Your task to perform on an android device: change the upload size in google photos Image 0: 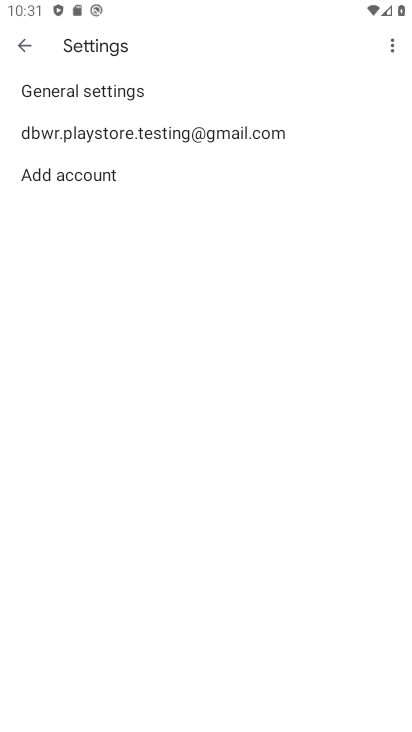
Step 0: press back button
Your task to perform on an android device: change the upload size in google photos Image 1: 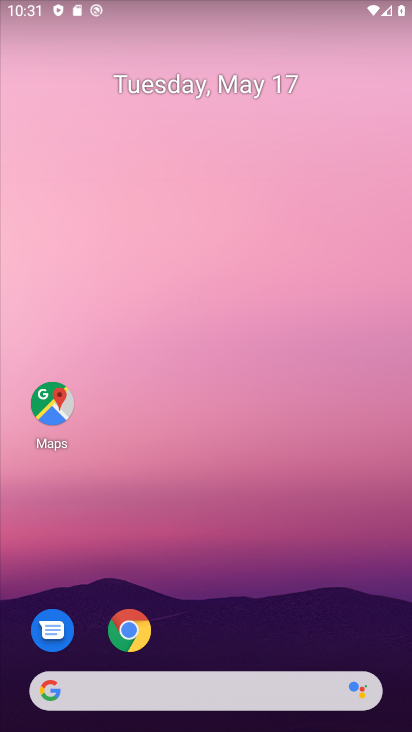
Step 1: drag from (195, 610) to (288, 120)
Your task to perform on an android device: change the upload size in google photos Image 2: 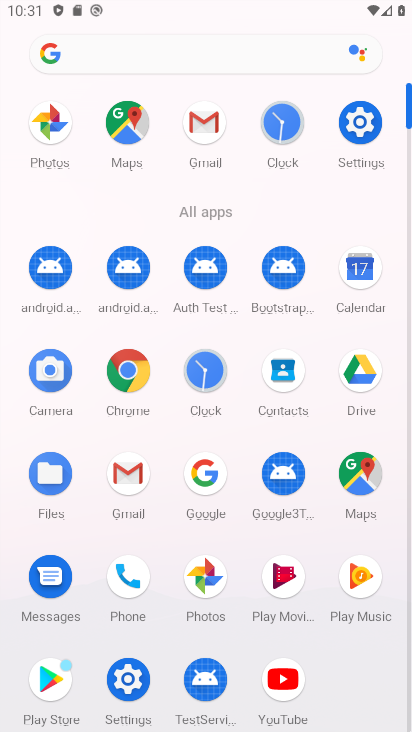
Step 2: click (206, 568)
Your task to perform on an android device: change the upload size in google photos Image 3: 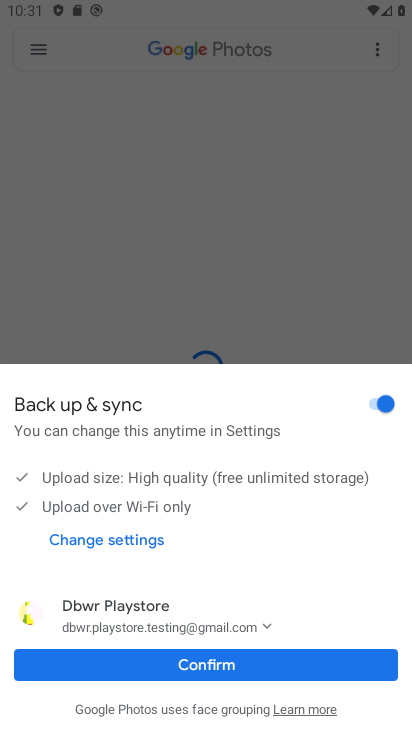
Step 3: click (273, 674)
Your task to perform on an android device: change the upload size in google photos Image 4: 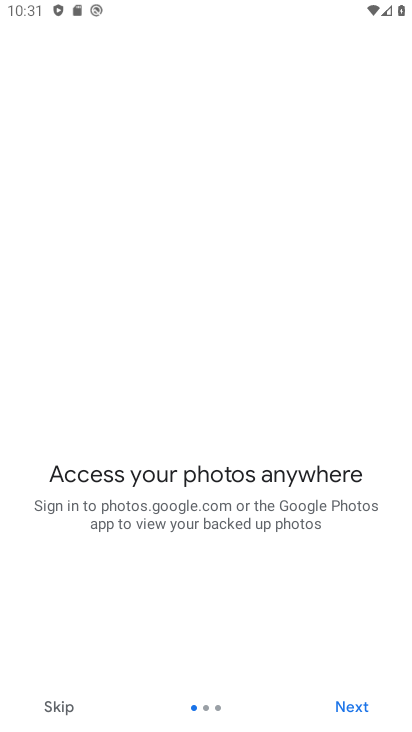
Step 4: click (339, 701)
Your task to perform on an android device: change the upload size in google photos Image 5: 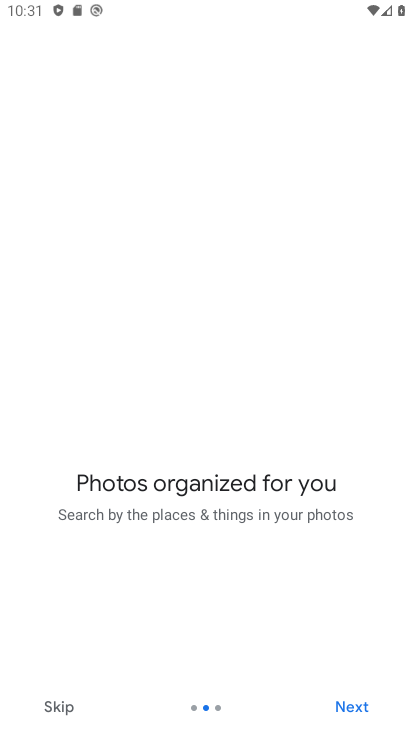
Step 5: click (340, 700)
Your task to perform on an android device: change the upload size in google photos Image 6: 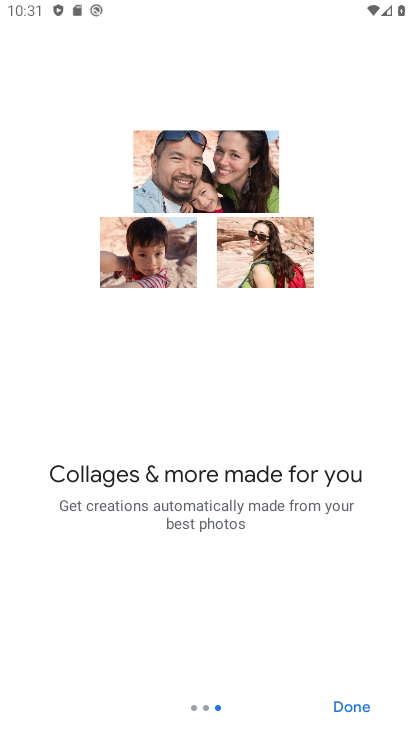
Step 6: click (342, 702)
Your task to perform on an android device: change the upload size in google photos Image 7: 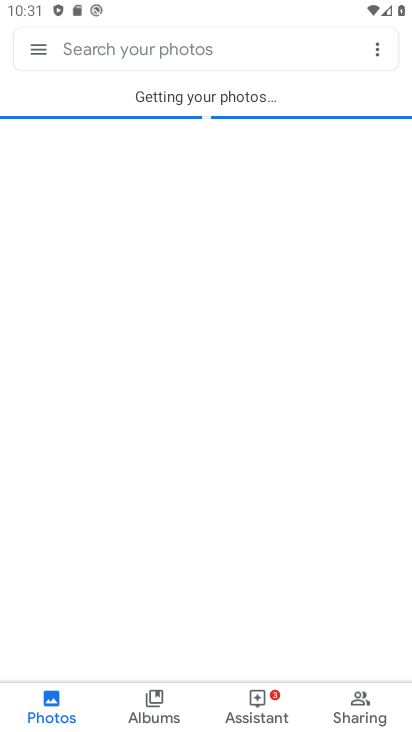
Step 7: click (40, 45)
Your task to perform on an android device: change the upload size in google photos Image 8: 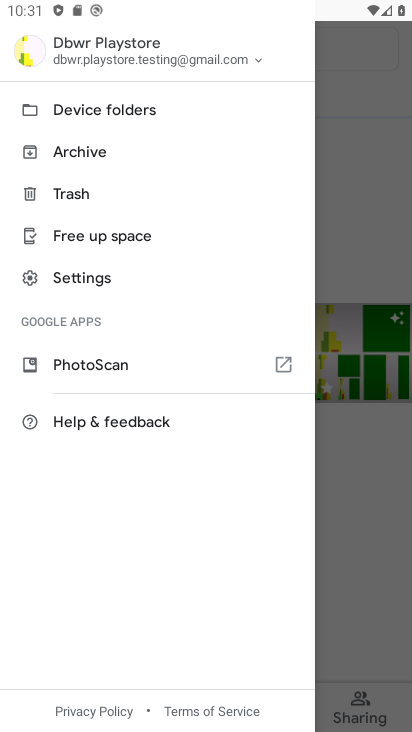
Step 8: click (79, 282)
Your task to perform on an android device: change the upload size in google photos Image 9: 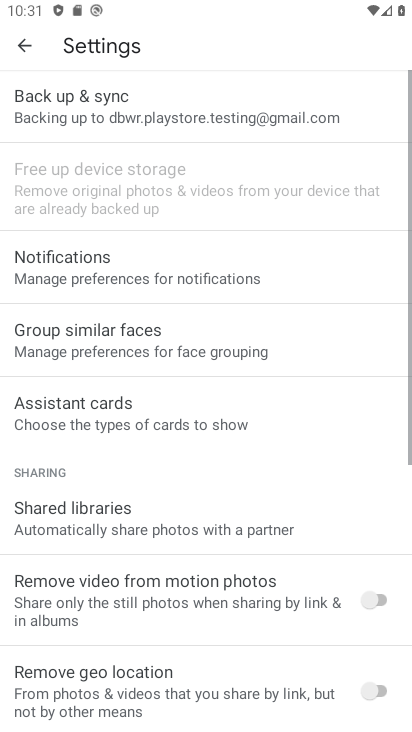
Step 9: click (143, 112)
Your task to perform on an android device: change the upload size in google photos Image 10: 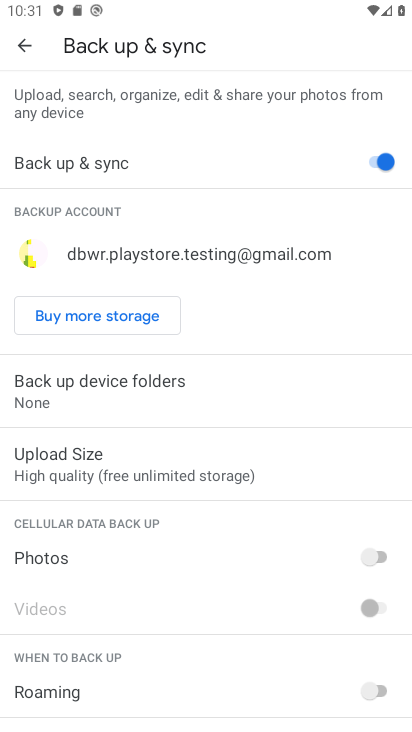
Step 10: click (106, 470)
Your task to perform on an android device: change the upload size in google photos Image 11: 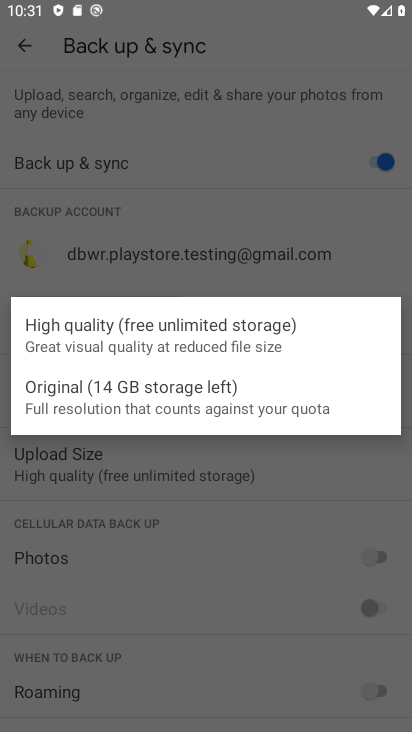
Step 11: click (110, 400)
Your task to perform on an android device: change the upload size in google photos Image 12: 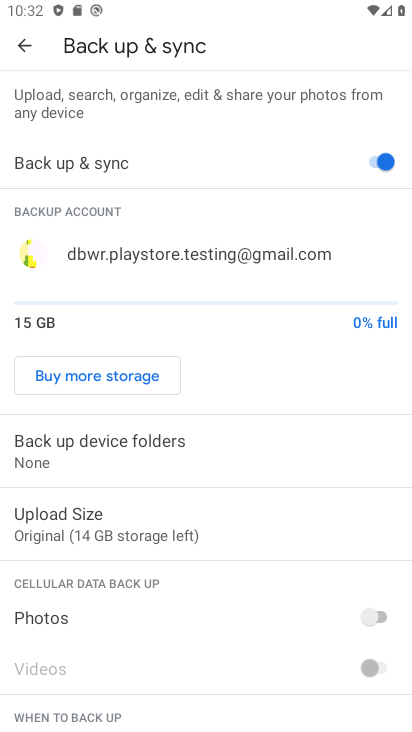
Step 12: task complete